Your task to perform on an android device: Search for hotels in Washington DC Image 0: 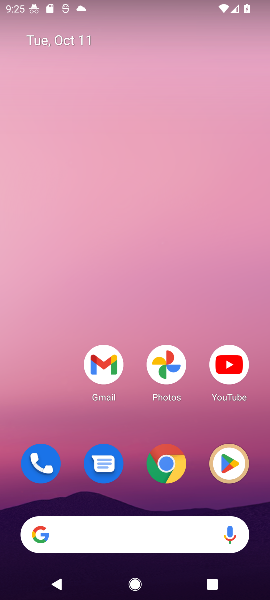
Step 0: drag from (104, 254) to (98, 171)
Your task to perform on an android device: Search for hotels in Washington DC Image 1: 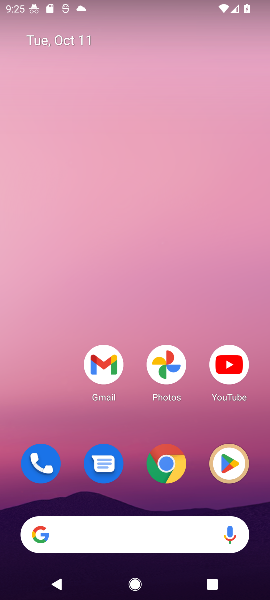
Step 1: drag from (133, 501) to (127, 252)
Your task to perform on an android device: Search for hotels in Washington DC Image 2: 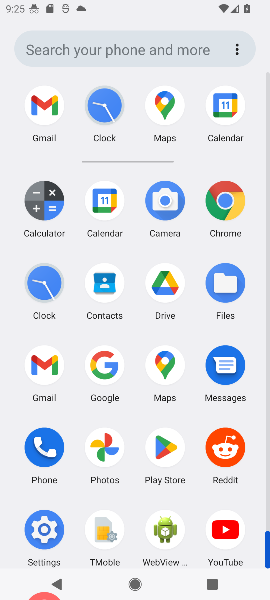
Step 2: click (96, 363)
Your task to perform on an android device: Search for hotels in Washington DC Image 3: 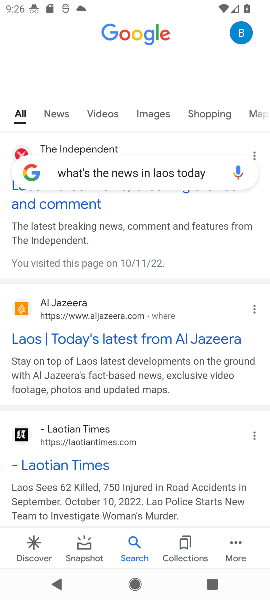
Step 3: click (149, 170)
Your task to perform on an android device: Search for hotels in Washington DC Image 4: 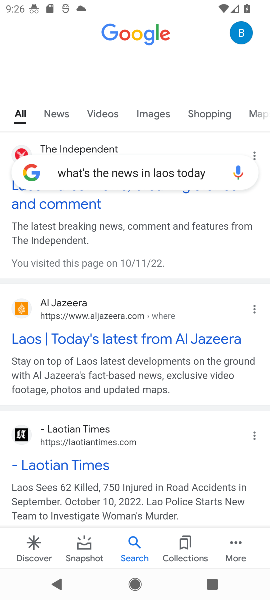
Step 4: click (149, 170)
Your task to perform on an android device: Search for hotels in Washington DC Image 5: 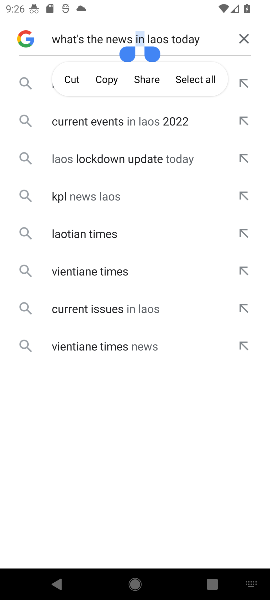
Step 5: click (244, 38)
Your task to perform on an android device: Search for hotels in Washington DC Image 6: 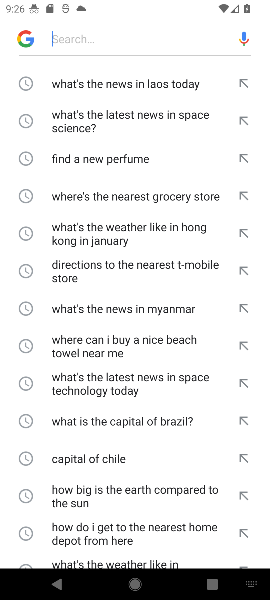
Step 6: click (82, 22)
Your task to perform on an android device: Search for hotels in Washington DC Image 7: 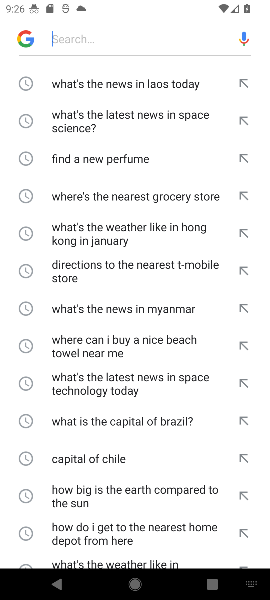
Step 7: type "Search for hotels in Washington DC "
Your task to perform on an android device: Search for hotels in Washington DC Image 8: 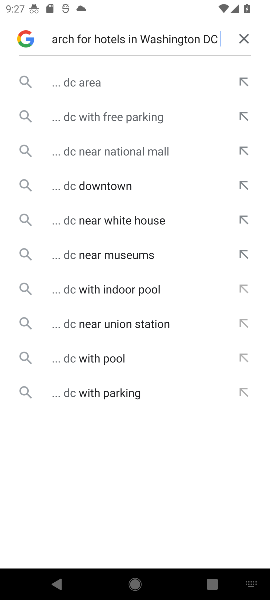
Step 8: click (95, 81)
Your task to perform on an android device: Search for hotels in Washington DC Image 9: 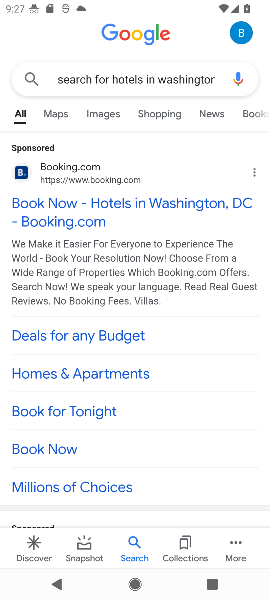
Step 9: click (72, 221)
Your task to perform on an android device: Search for hotels in Washington DC Image 10: 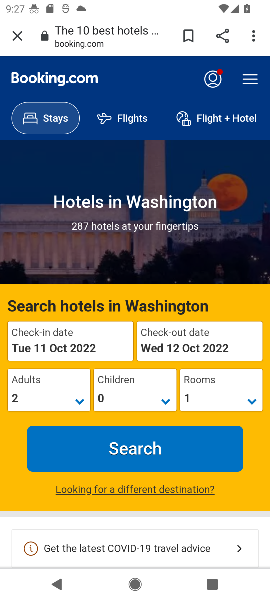
Step 10: click (88, 439)
Your task to perform on an android device: Search for hotels in Washington DC Image 11: 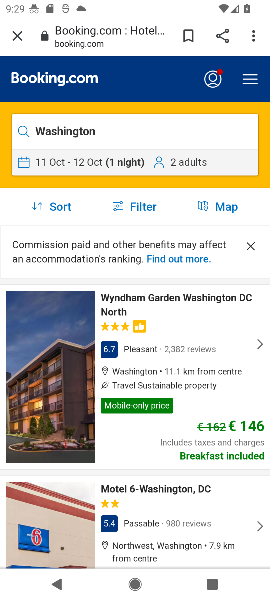
Step 11: task complete